Your task to perform on an android device: toggle data saver in the chrome app Image 0: 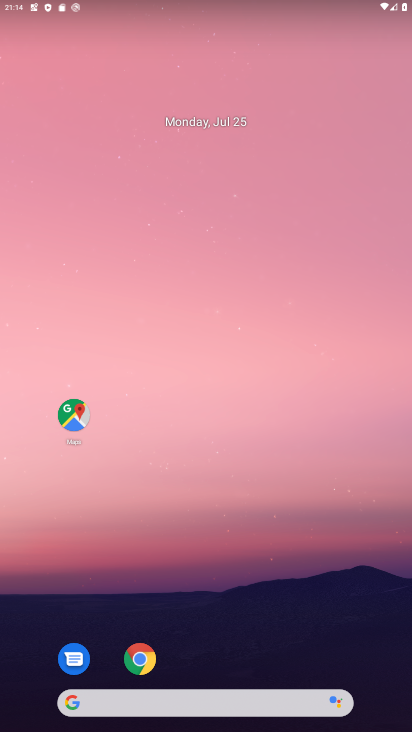
Step 0: click (136, 661)
Your task to perform on an android device: toggle data saver in the chrome app Image 1: 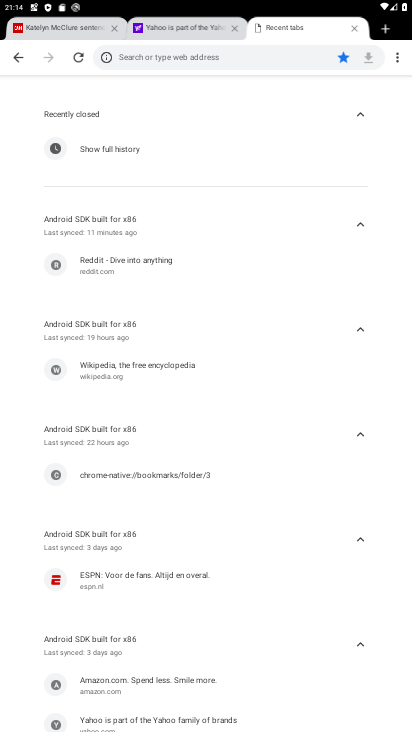
Step 1: click (394, 58)
Your task to perform on an android device: toggle data saver in the chrome app Image 2: 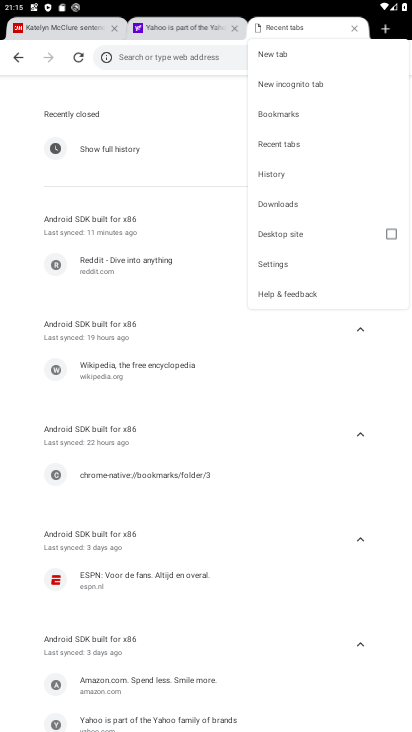
Step 2: click (308, 270)
Your task to perform on an android device: toggle data saver in the chrome app Image 3: 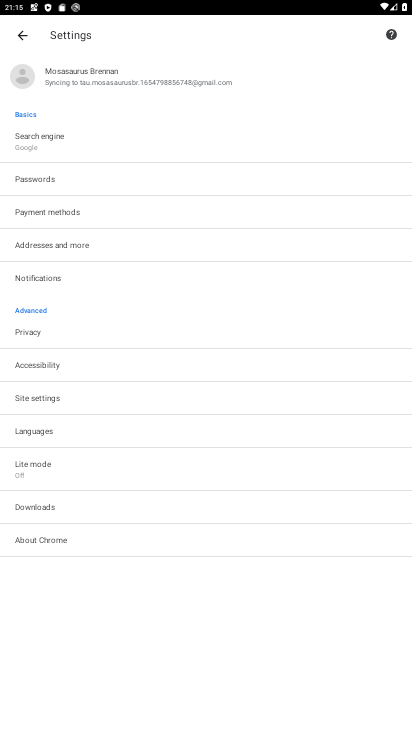
Step 3: click (73, 462)
Your task to perform on an android device: toggle data saver in the chrome app Image 4: 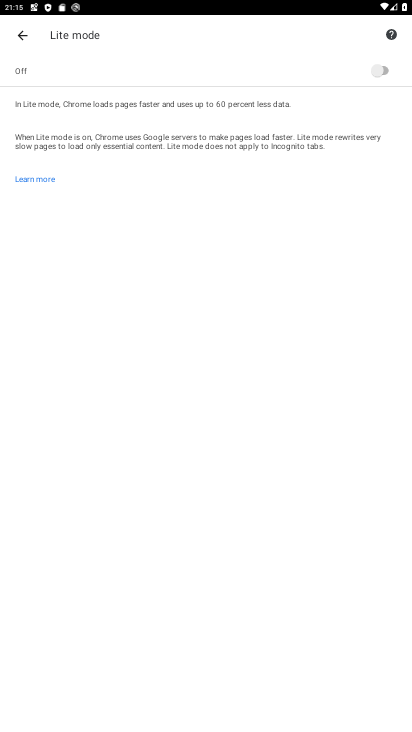
Step 4: click (394, 69)
Your task to perform on an android device: toggle data saver in the chrome app Image 5: 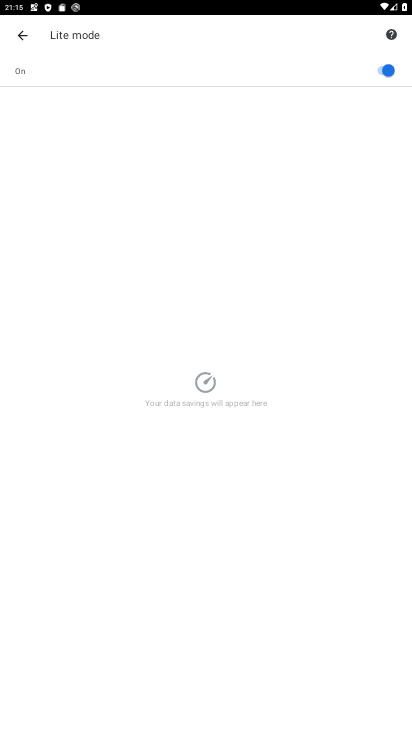
Step 5: task complete